Your task to perform on an android device: Open wifi settings Image 0: 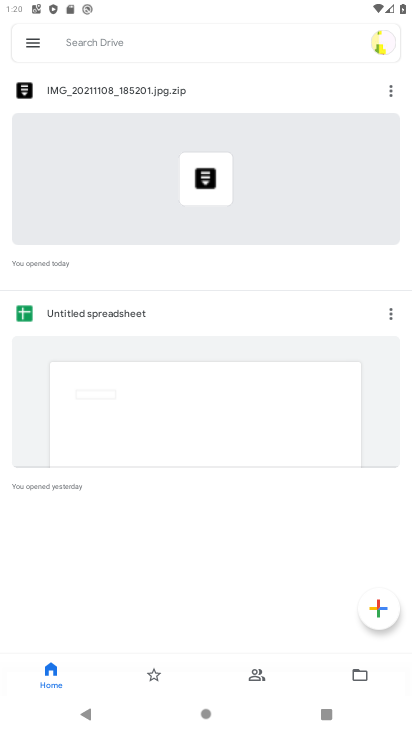
Step 0: press home button
Your task to perform on an android device: Open wifi settings Image 1: 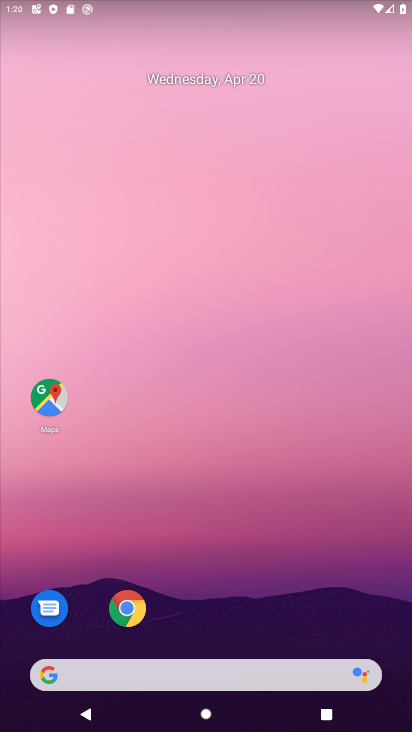
Step 1: drag from (211, 729) to (197, 23)
Your task to perform on an android device: Open wifi settings Image 2: 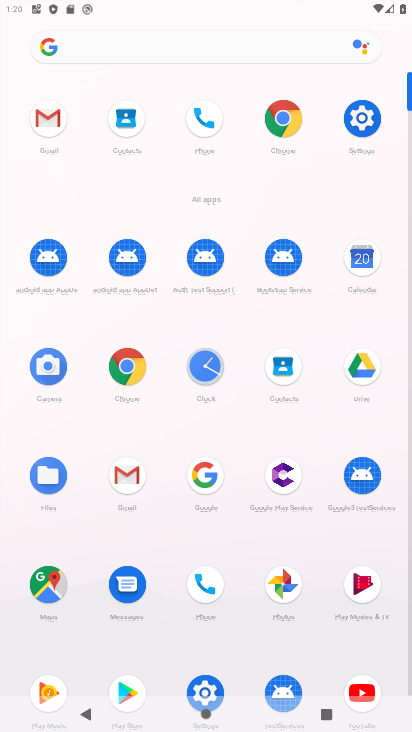
Step 2: click (364, 120)
Your task to perform on an android device: Open wifi settings Image 3: 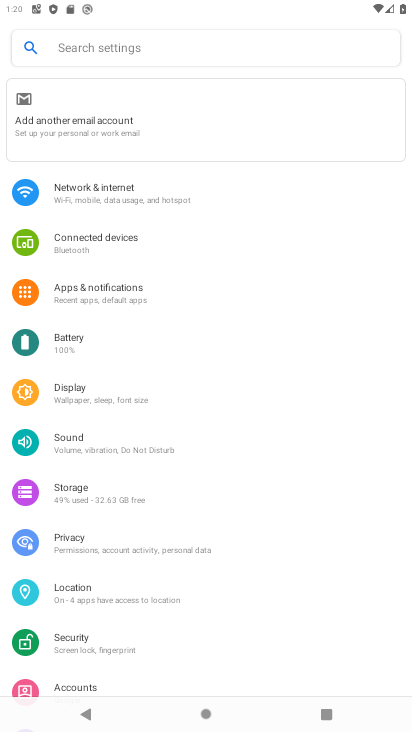
Step 3: click (110, 192)
Your task to perform on an android device: Open wifi settings Image 4: 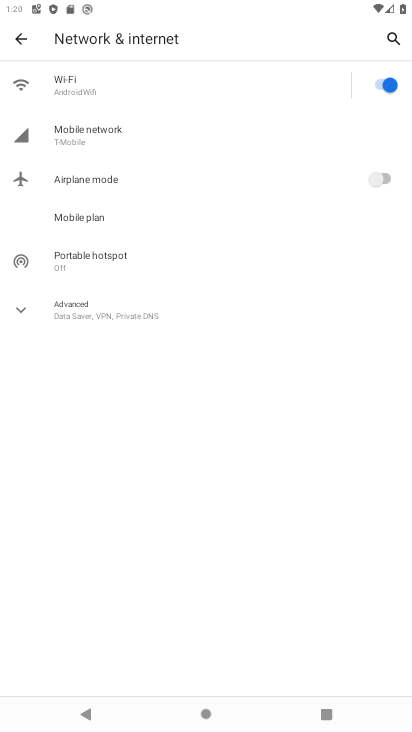
Step 4: click (72, 78)
Your task to perform on an android device: Open wifi settings Image 5: 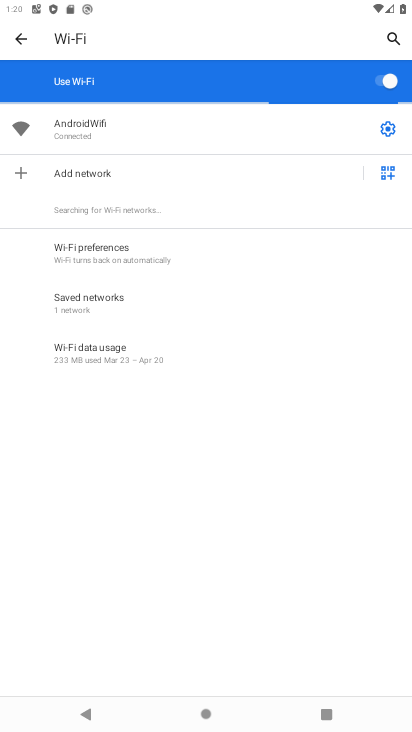
Step 5: click (386, 125)
Your task to perform on an android device: Open wifi settings Image 6: 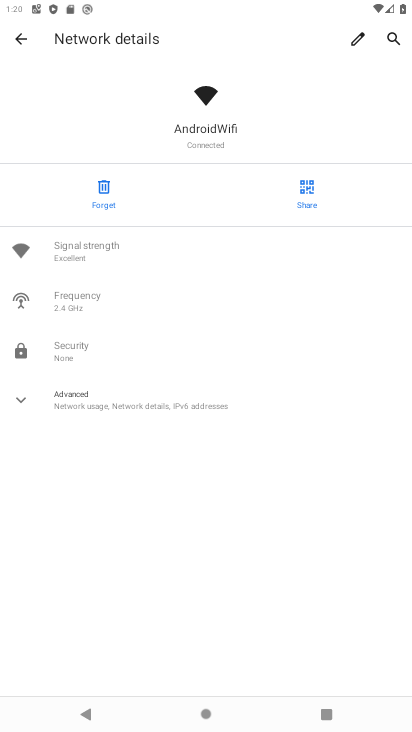
Step 6: task complete